Your task to perform on an android device: toggle sleep mode Image 0: 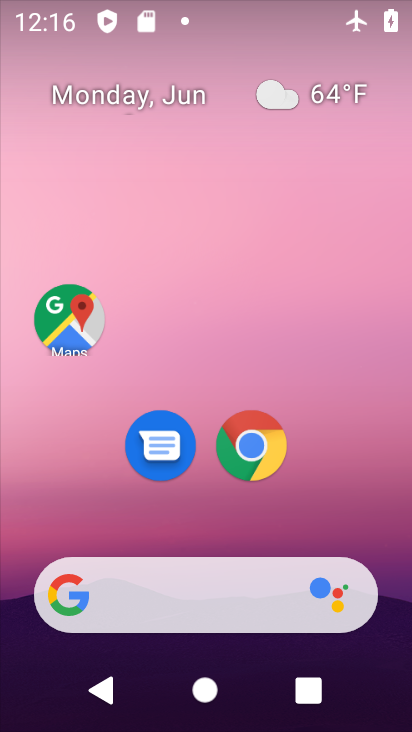
Step 0: drag from (263, 539) to (270, 17)
Your task to perform on an android device: toggle sleep mode Image 1: 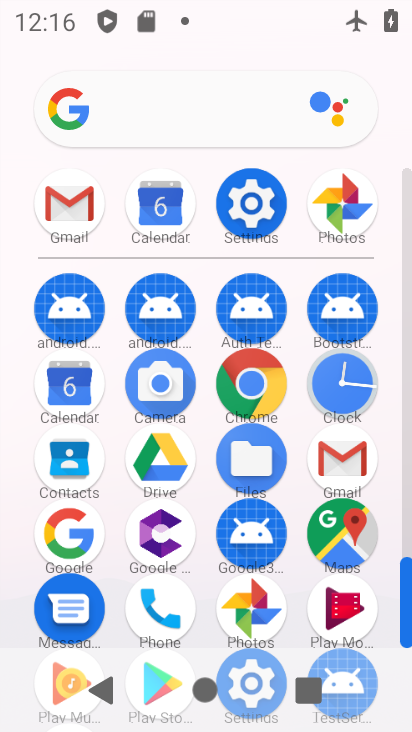
Step 1: click (265, 201)
Your task to perform on an android device: toggle sleep mode Image 2: 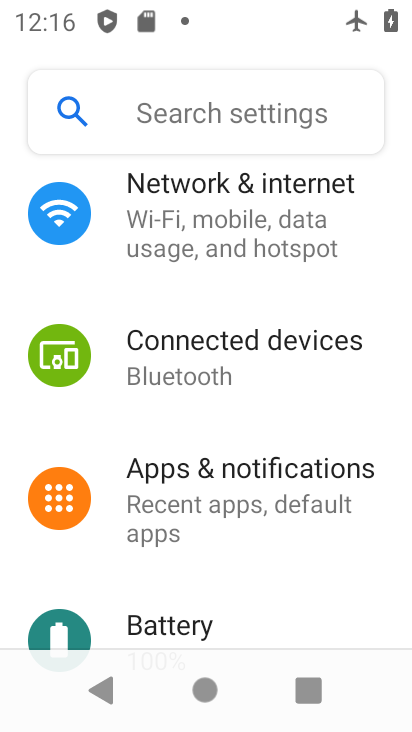
Step 2: task complete